Your task to perform on an android device: Is it going to rain tomorrow? Image 0: 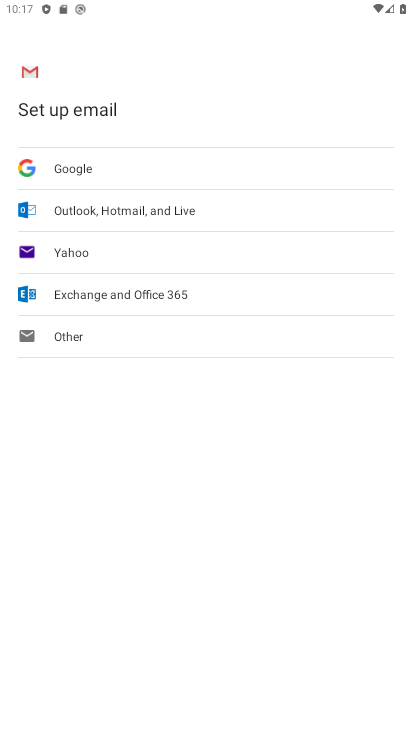
Step 0: press home button
Your task to perform on an android device: Is it going to rain tomorrow? Image 1: 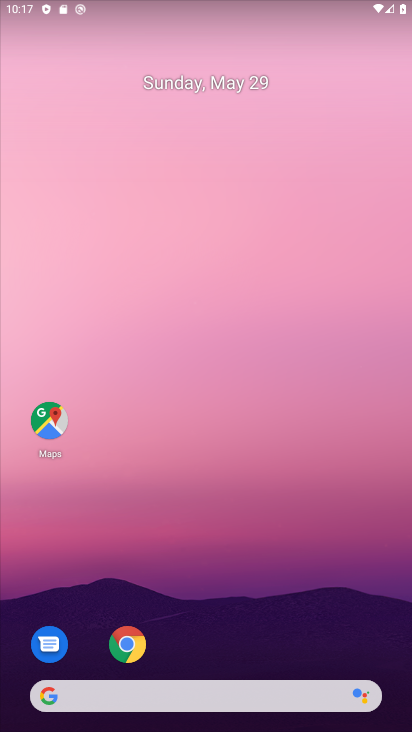
Step 1: click (135, 637)
Your task to perform on an android device: Is it going to rain tomorrow? Image 2: 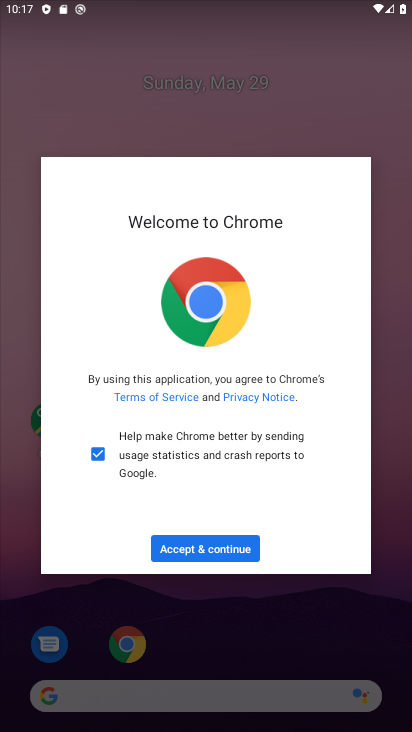
Step 2: click (218, 545)
Your task to perform on an android device: Is it going to rain tomorrow? Image 3: 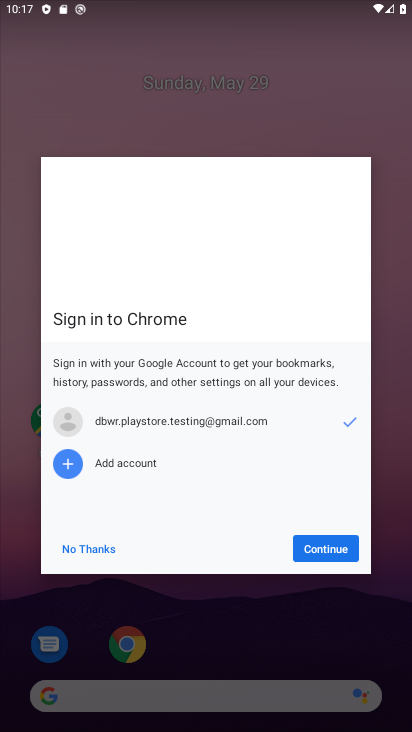
Step 3: click (318, 552)
Your task to perform on an android device: Is it going to rain tomorrow? Image 4: 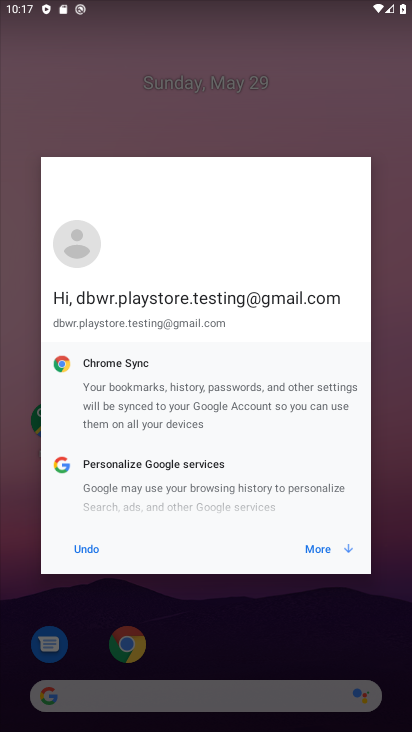
Step 4: click (318, 552)
Your task to perform on an android device: Is it going to rain tomorrow? Image 5: 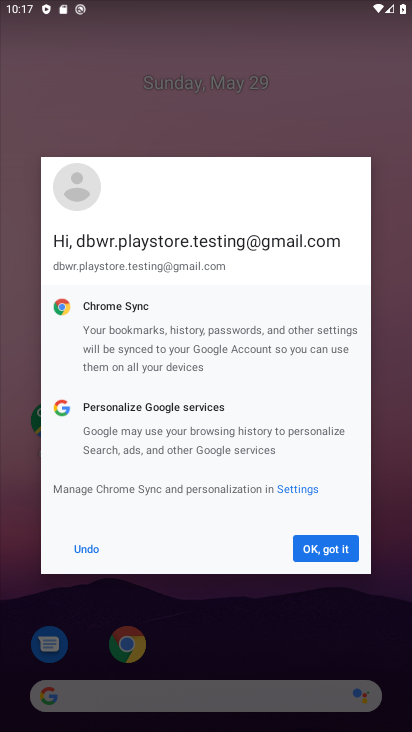
Step 5: click (318, 552)
Your task to perform on an android device: Is it going to rain tomorrow? Image 6: 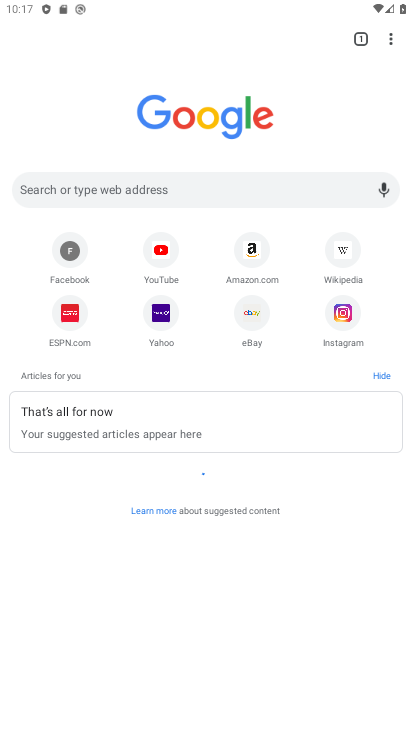
Step 6: click (190, 193)
Your task to perform on an android device: Is it going to rain tomorrow? Image 7: 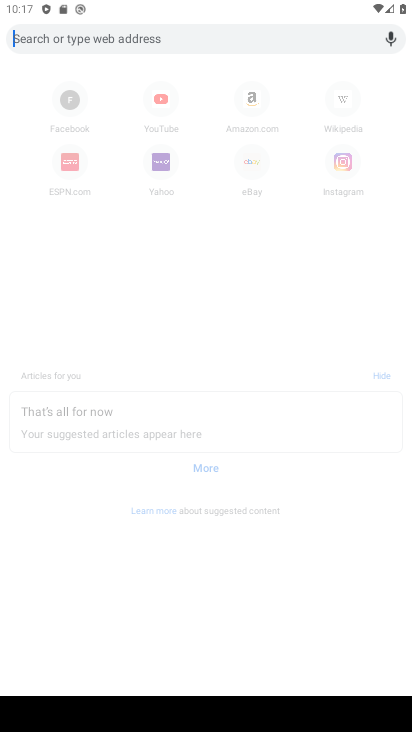
Step 7: type "Is it going to rain tomorrow?"
Your task to perform on an android device: Is it going to rain tomorrow? Image 8: 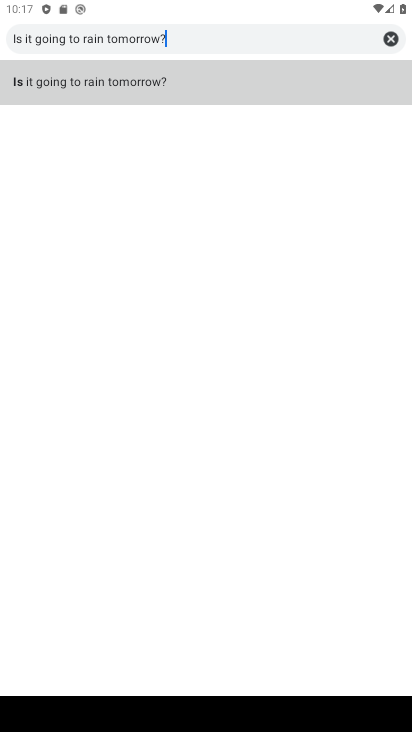
Step 8: click (84, 85)
Your task to perform on an android device: Is it going to rain tomorrow? Image 9: 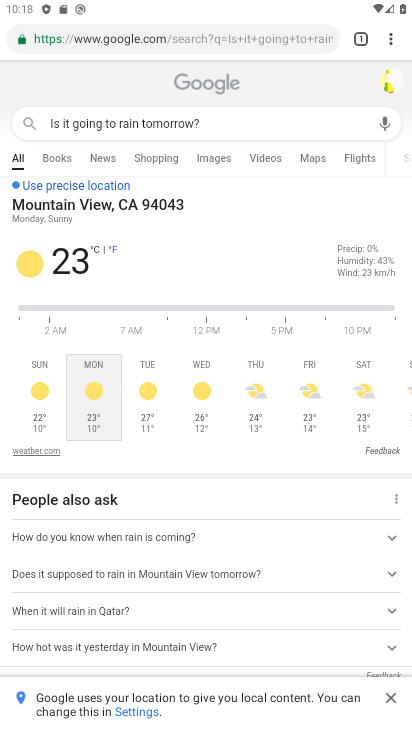
Step 9: task complete